Your task to perform on an android device: install app "McDonald's" Image 0: 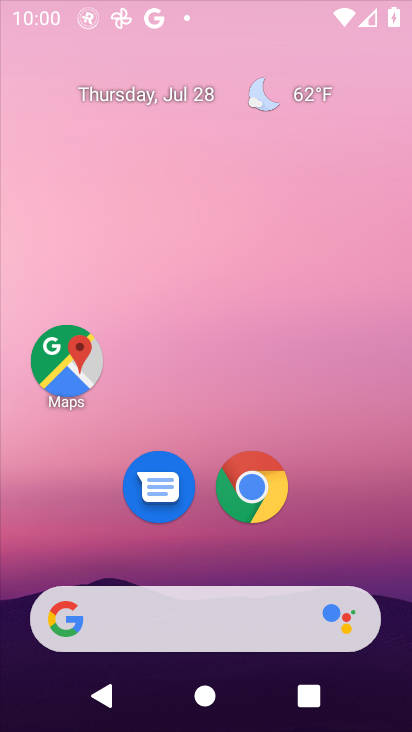
Step 0: drag from (241, 480) to (241, 308)
Your task to perform on an android device: install app "McDonald's" Image 1: 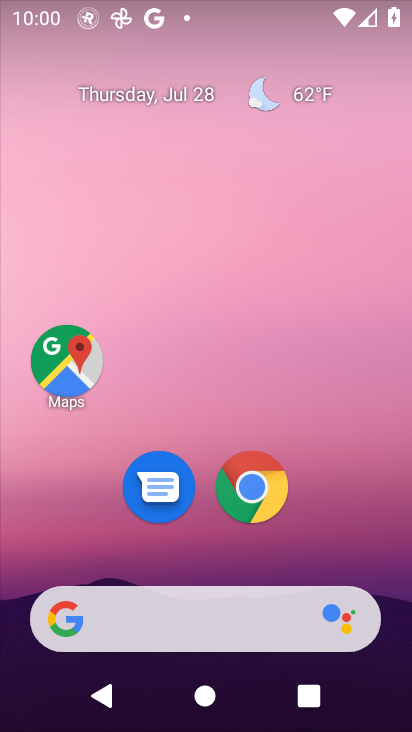
Step 1: drag from (243, 491) to (218, 236)
Your task to perform on an android device: install app "McDonald's" Image 2: 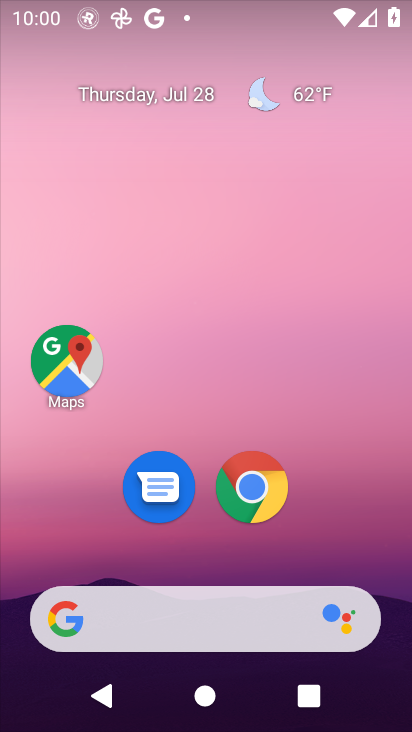
Step 2: drag from (304, 603) to (257, 158)
Your task to perform on an android device: install app "McDonald's" Image 3: 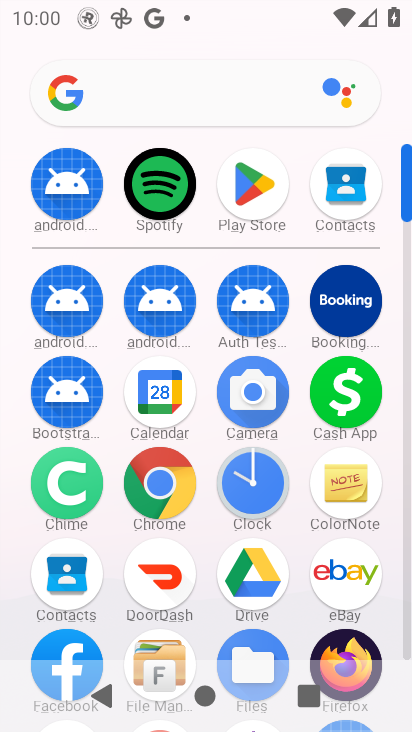
Step 3: click (256, 184)
Your task to perform on an android device: install app "McDonald's" Image 4: 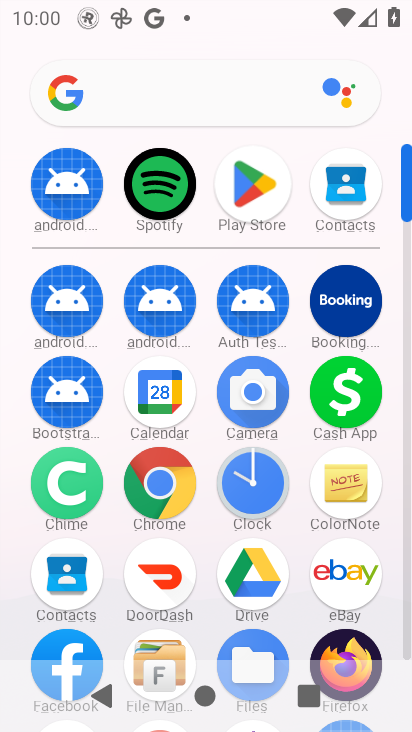
Step 4: click (256, 184)
Your task to perform on an android device: install app "McDonald's" Image 5: 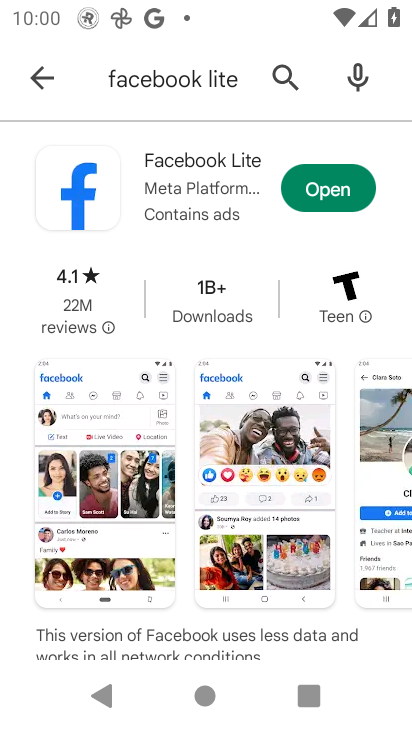
Step 5: click (53, 85)
Your task to perform on an android device: install app "McDonald's" Image 6: 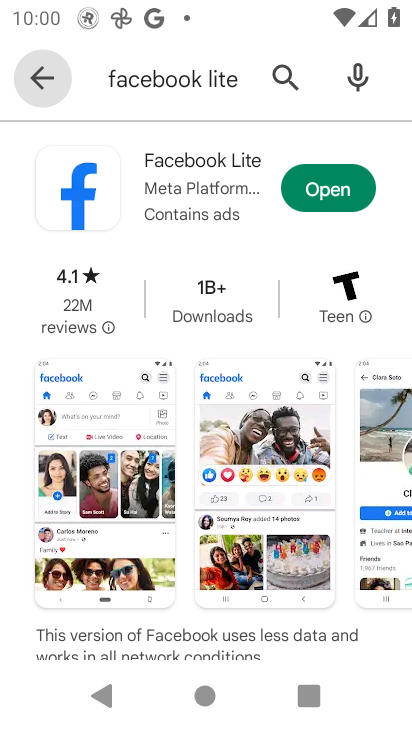
Step 6: click (53, 85)
Your task to perform on an android device: install app "McDonald's" Image 7: 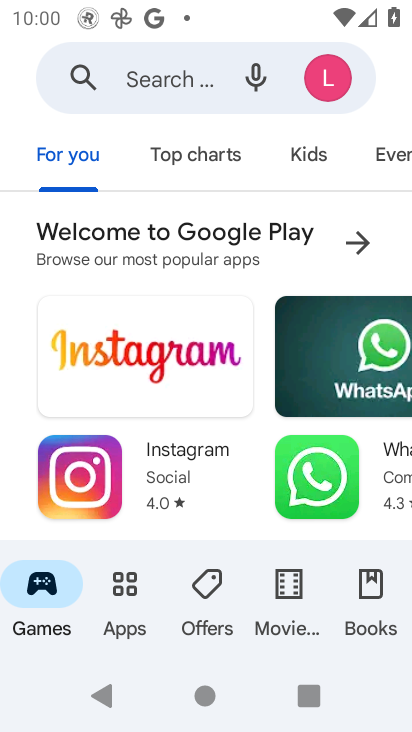
Step 7: click (152, 79)
Your task to perform on an android device: install app "McDonald's" Image 8: 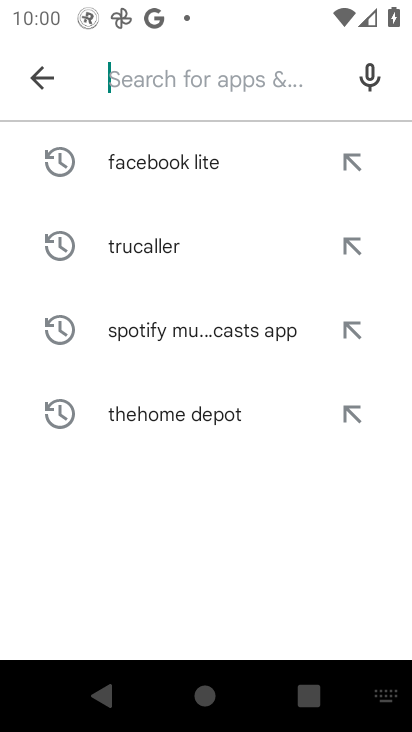
Step 8: type "mcdonald's"
Your task to perform on an android device: install app "McDonald's" Image 9: 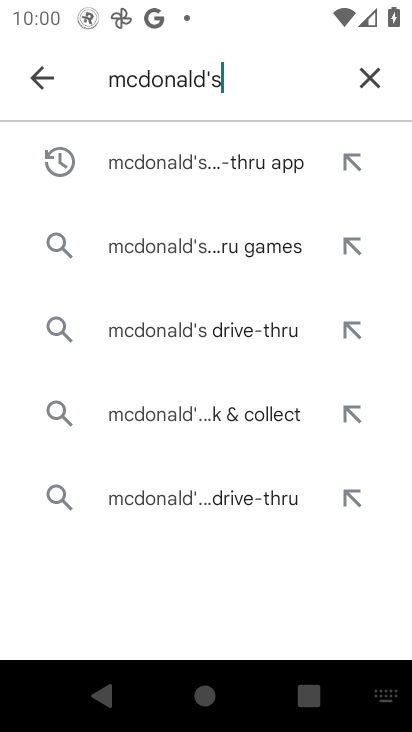
Step 9: click (240, 159)
Your task to perform on an android device: install app "McDonald's" Image 10: 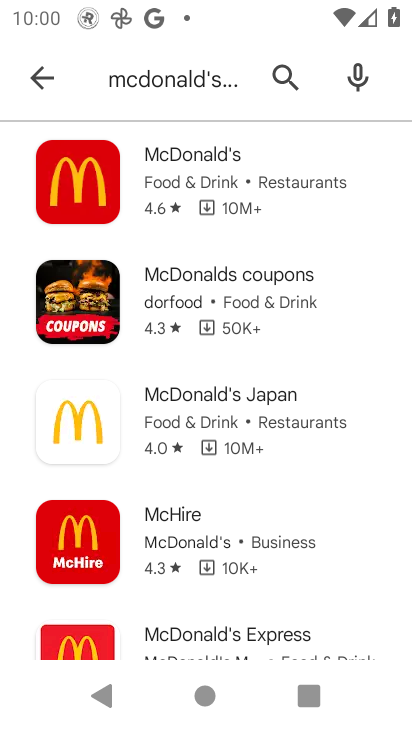
Step 10: click (220, 178)
Your task to perform on an android device: install app "McDonald's" Image 11: 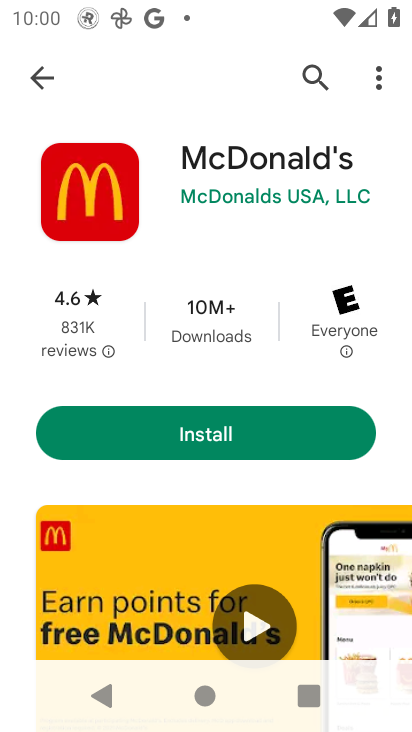
Step 11: click (229, 434)
Your task to perform on an android device: install app "McDonald's" Image 12: 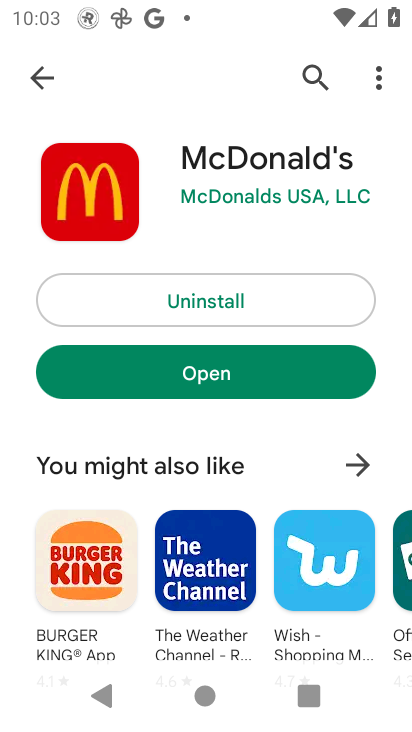
Step 12: click (215, 367)
Your task to perform on an android device: install app "McDonald's" Image 13: 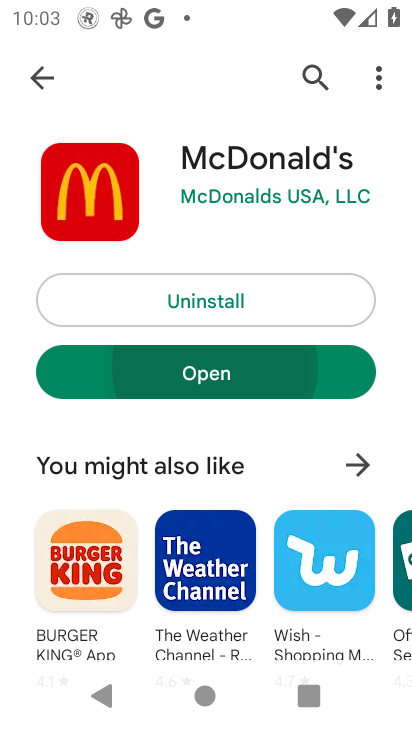
Step 13: click (216, 368)
Your task to perform on an android device: install app "McDonald's" Image 14: 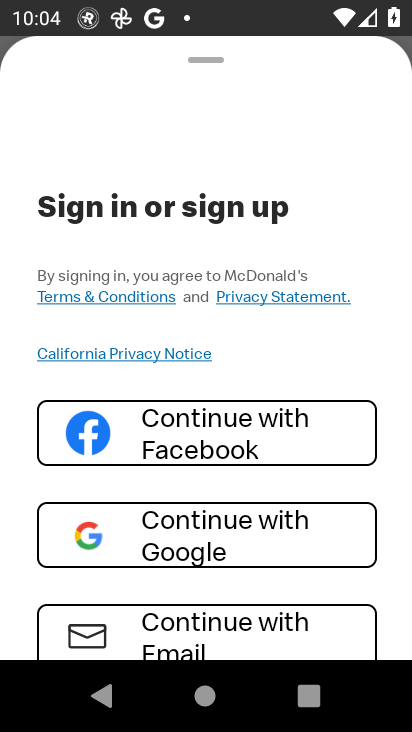
Step 14: task complete